Your task to perform on an android device: Show me recent news Image 0: 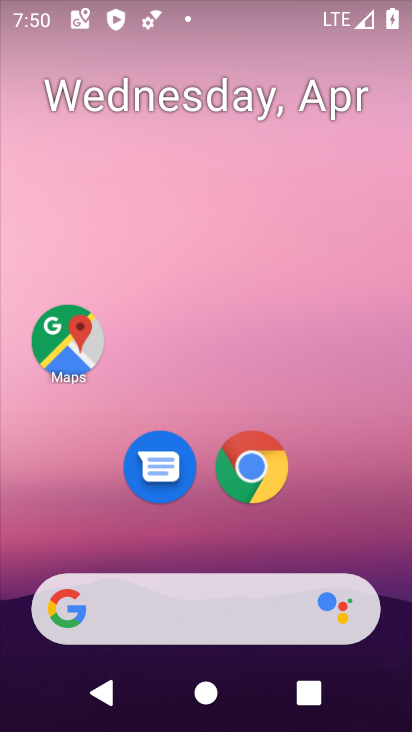
Step 0: drag from (42, 245) to (310, 201)
Your task to perform on an android device: Show me recent news Image 1: 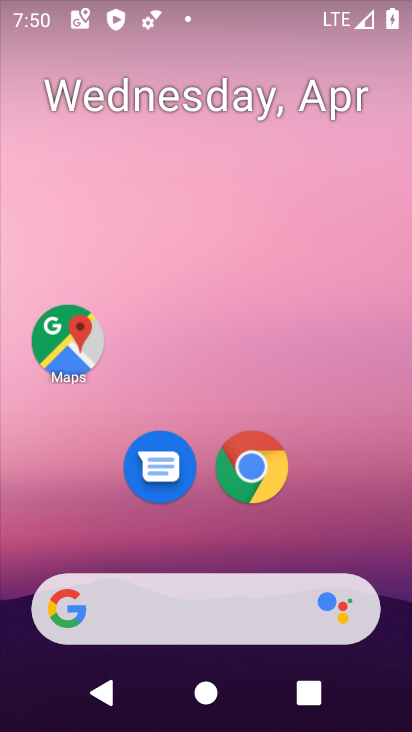
Step 1: task complete